Your task to perform on an android device: turn pop-ups off in chrome Image 0: 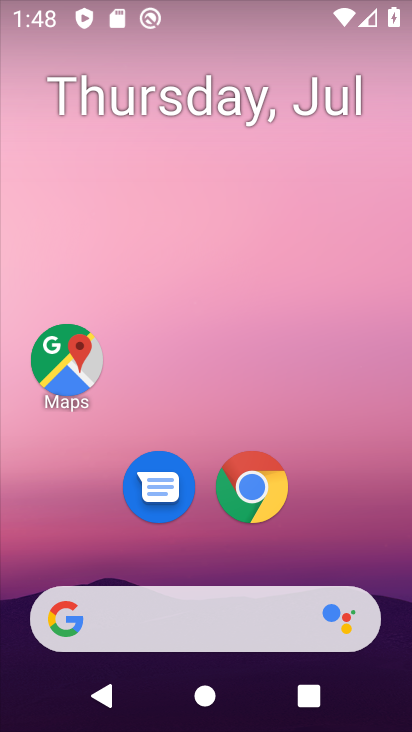
Step 0: drag from (353, 544) to (340, 189)
Your task to perform on an android device: turn pop-ups off in chrome Image 1: 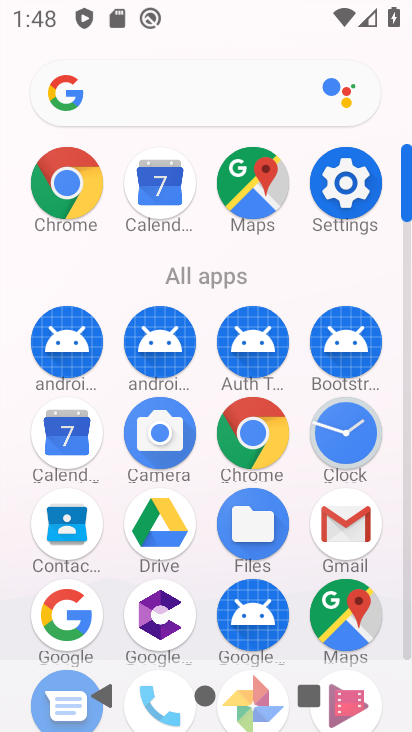
Step 1: click (279, 433)
Your task to perform on an android device: turn pop-ups off in chrome Image 2: 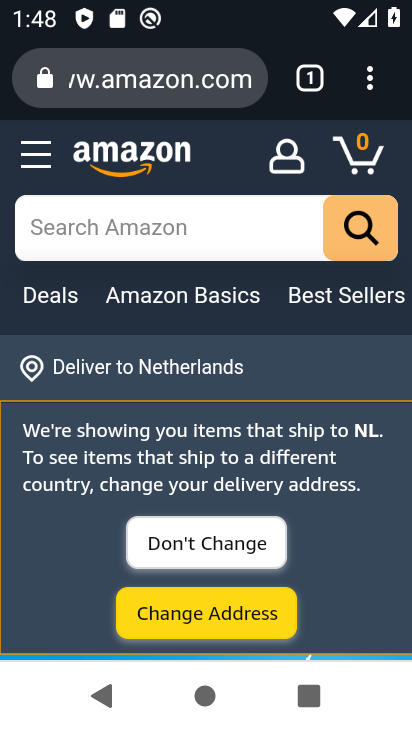
Step 2: click (366, 88)
Your task to perform on an android device: turn pop-ups off in chrome Image 3: 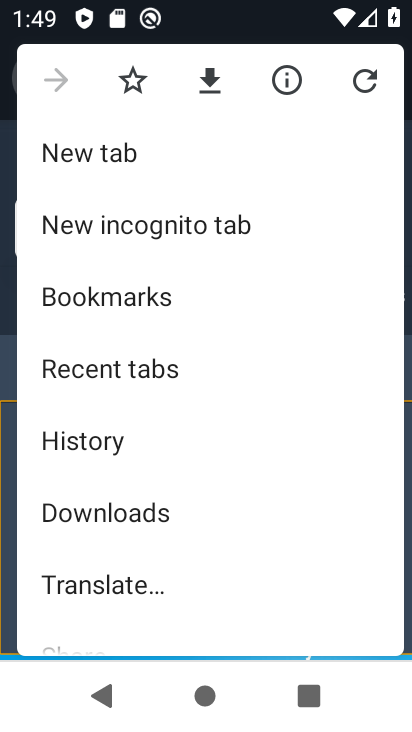
Step 3: drag from (358, 315) to (364, 256)
Your task to perform on an android device: turn pop-ups off in chrome Image 4: 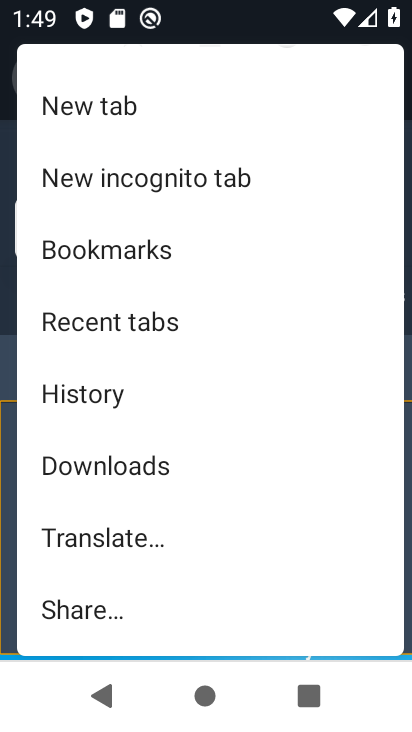
Step 4: drag from (347, 357) to (346, 277)
Your task to perform on an android device: turn pop-ups off in chrome Image 5: 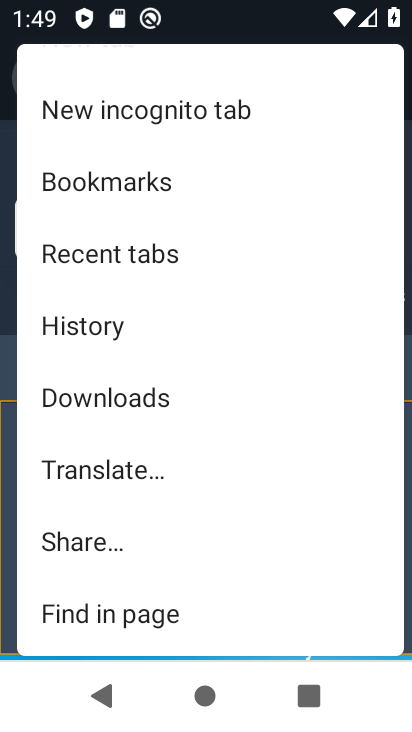
Step 5: drag from (338, 438) to (341, 341)
Your task to perform on an android device: turn pop-ups off in chrome Image 6: 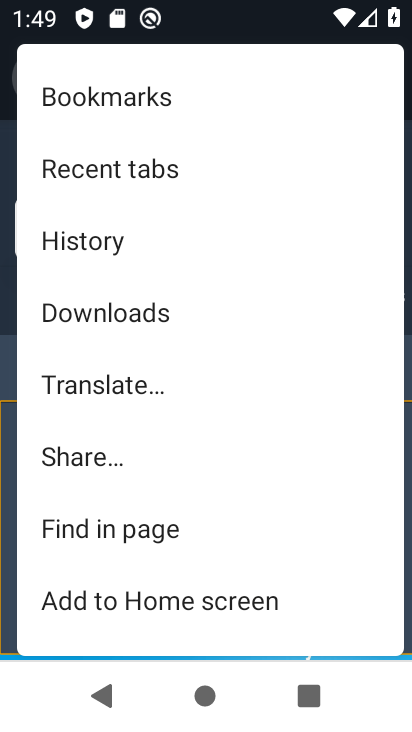
Step 6: drag from (309, 465) to (304, 361)
Your task to perform on an android device: turn pop-ups off in chrome Image 7: 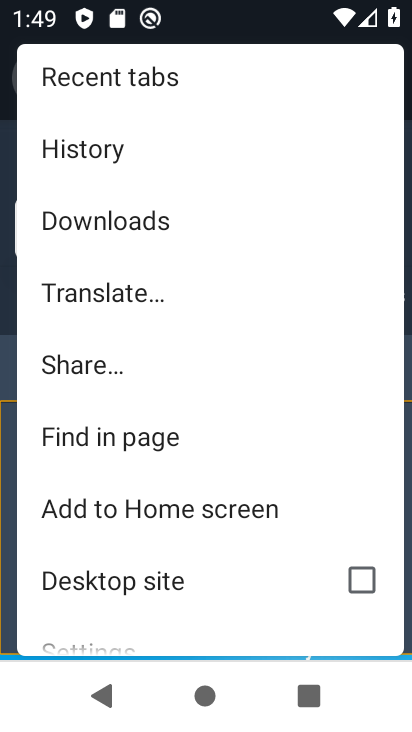
Step 7: drag from (298, 468) to (295, 299)
Your task to perform on an android device: turn pop-ups off in chrome Image 8: 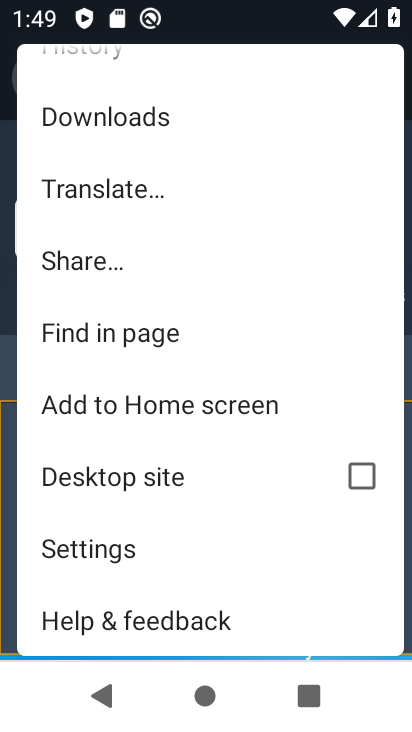
Step 8: click (119, 552)
Your task to perform on an android device: turn pop-ups off in chrome Image 9: 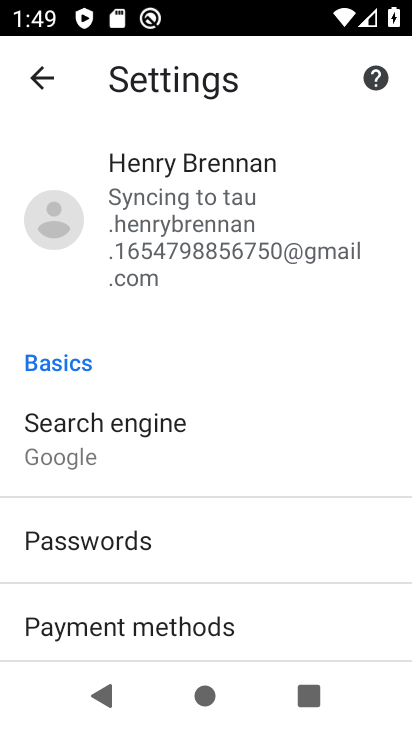
Step 9: drag from (333, 559) to (333, 460)
Your task to perform on an android device: turn pop-ups off in chrome Image 10: 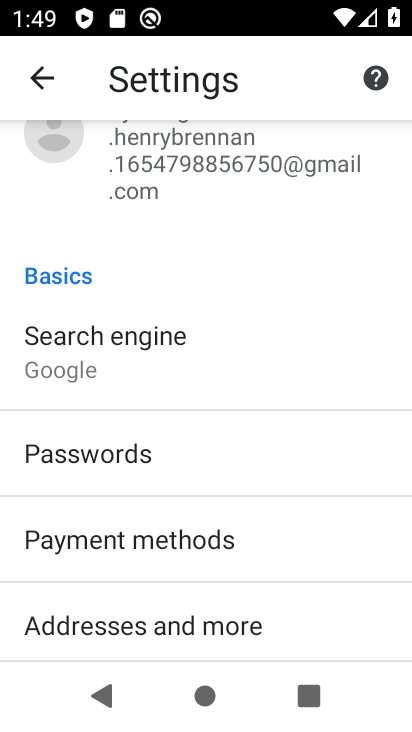
Step 10: drag from (340, 544) to (340, 464)
Your task to perform on an android device: turn pop-ups off in chrome Image 11: 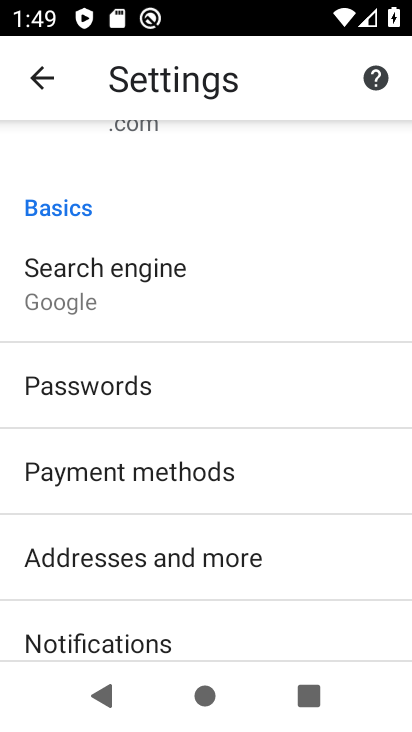
Step 11: drag from (340, 545) to (347, 449)
Your task to perform on an android device: turn pop-ups off in chrome Image 12: 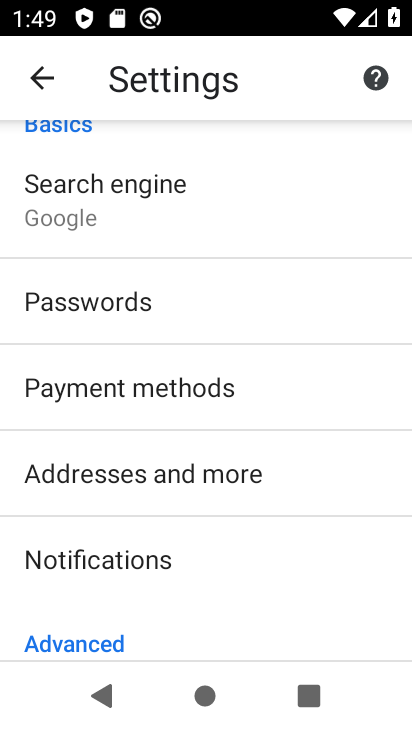
Step 12: drag from (359, 579) to (359, 480)
Your task to perform on an android device: turn pop-ups off in chrome Image 13: 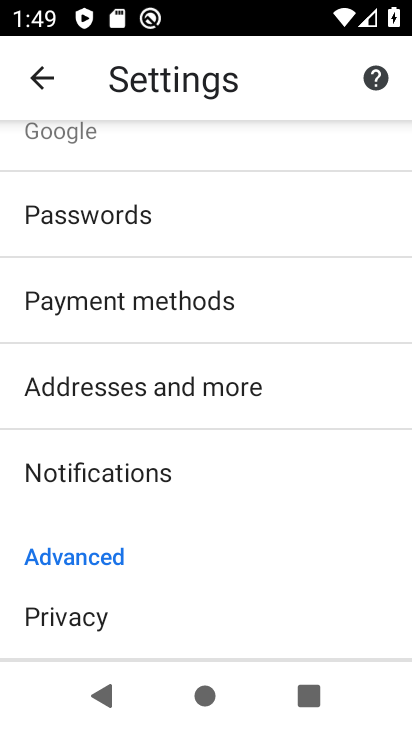
Step 13: drag from (349, 583) to (338, 458)
Your task to perform on an android device: turn pop-ups off in chrome Image 14: 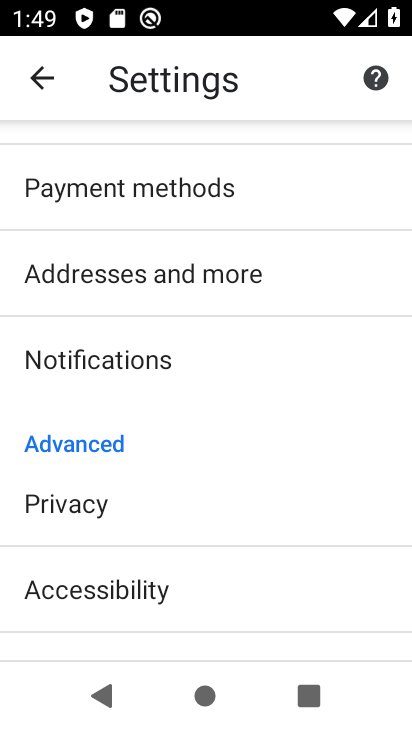
Step 14: drag from (326, 543) to (320, 431)
Your task to perform on an android device: turn pop-ups off in chrome Image 15: 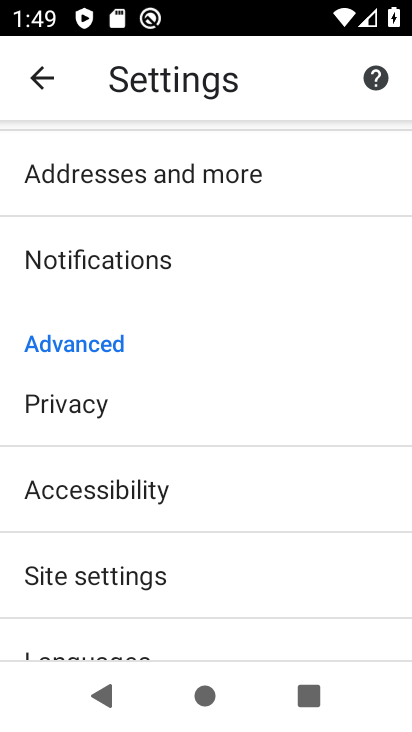
Step 15: drag from (325, 517) to (324, 419)
Your task to perform on an android device: turn pop-ups off in chrome Image 16: 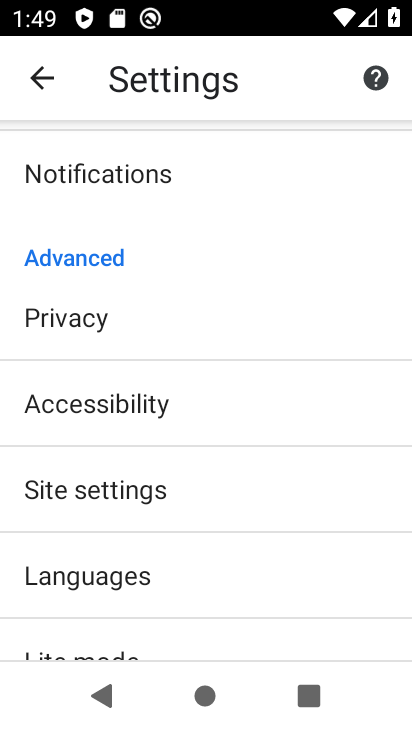
Step 16: drag from (322, 534) to (321, 435)
Your task to perform on an android device: turn pop-ups off in chrome Image 17: 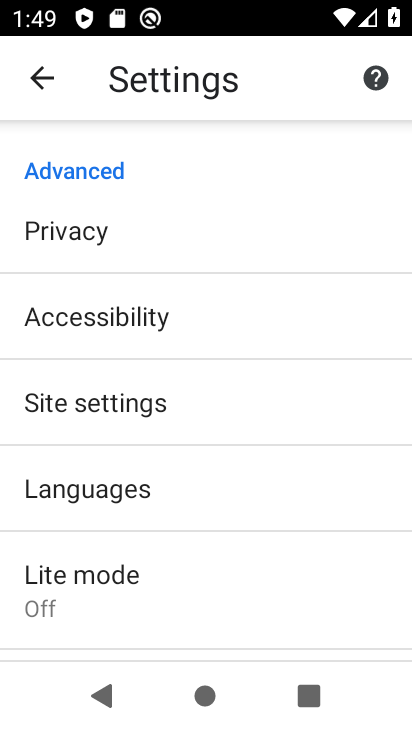
Step 17: click (235, 424)
Your task to perform on an android device: turn pop-ups off in chrome Image 18: 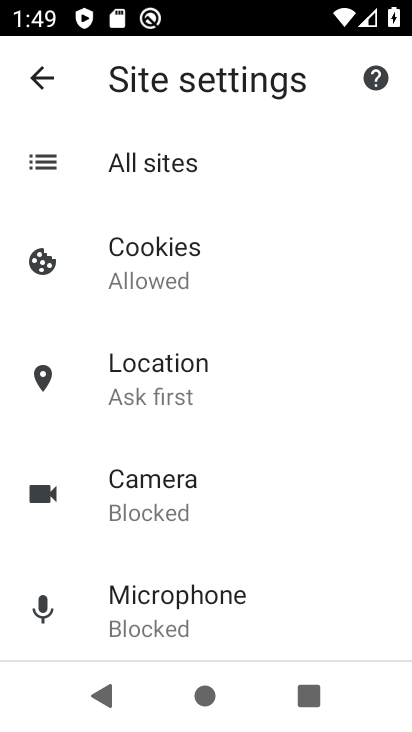
Step 18: drag from (315, 485) to (323, 415)
Your task to perform on an android device: turn pop-ups off in chrome Image 19: 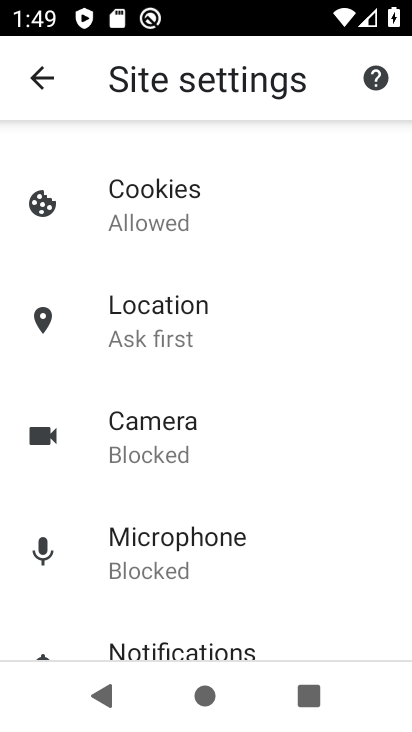
Step 19: drag from (316, 501) to (317, 423)
Your task to perform on an android device: turn pop-ups off in chrome Image 20: 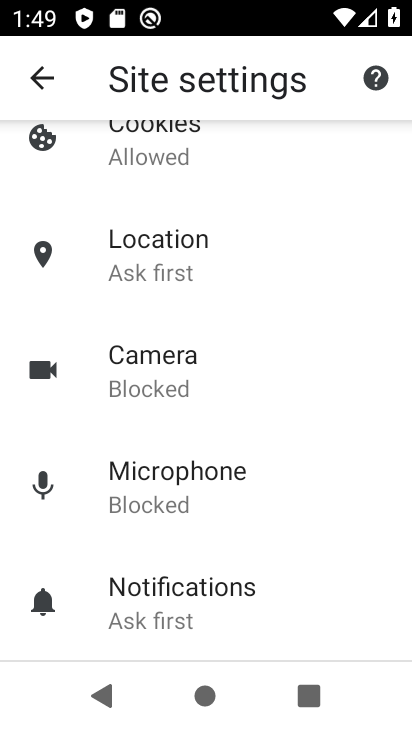
Step 20: drag from (331, 507) to (330, 417)
Your task to perform on an android device: turn pop-ups off in chrome Image 21: 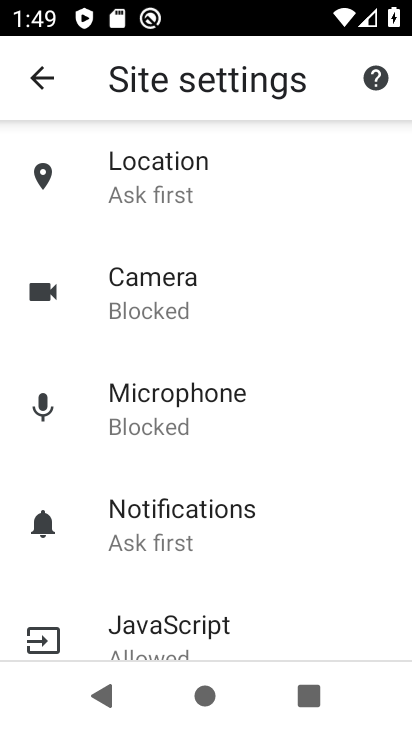
Step 21: drag from (327, 497) to (327, 381)
Your task to perform on an android device: turn pop-ups off in chrome Image 22: 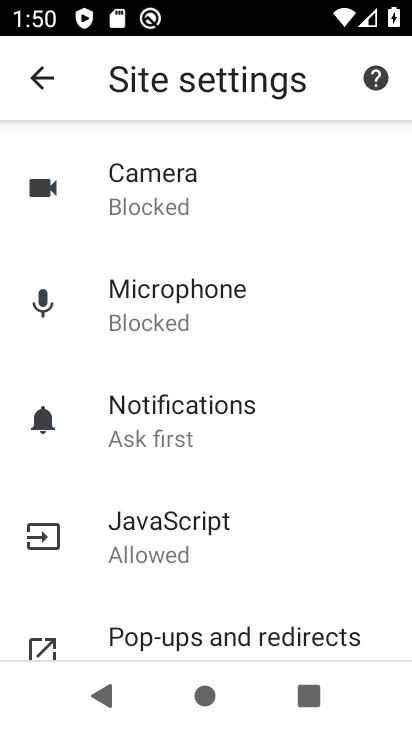
Step 22: drag from (314, 524) to (313, 424)
Your task to perform on an android device: turn pop-ups off in chrome Image 23: 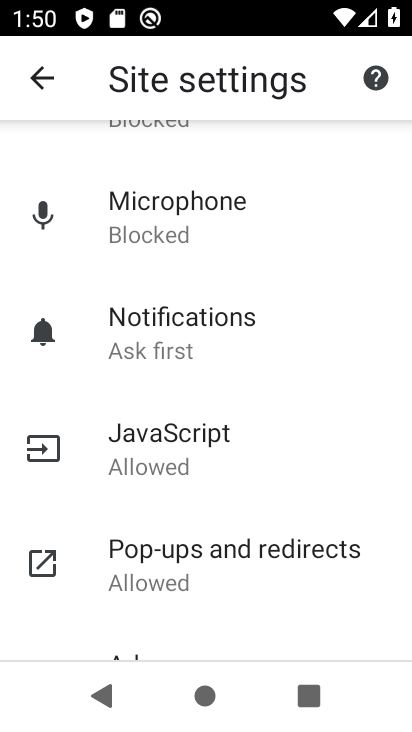
Step 23: drag from (319, 575) to (311, 426)
Your task to perform on an android device: turn pop-ups off in chrome Image 24: 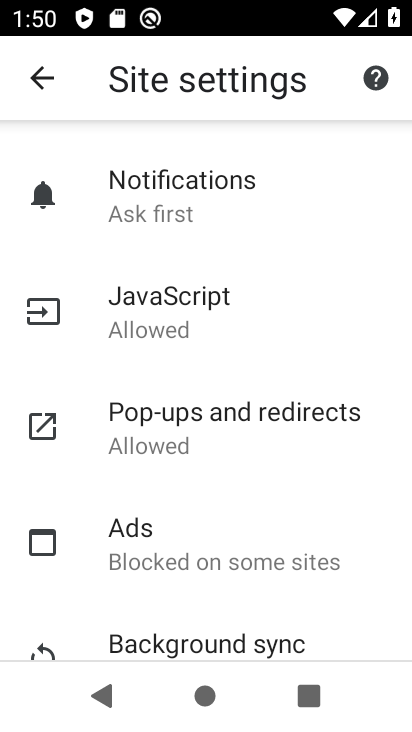
Step 24: click (243, 435)
Your task to perform on an android device: turn pop-ups off in chrome Image 25: 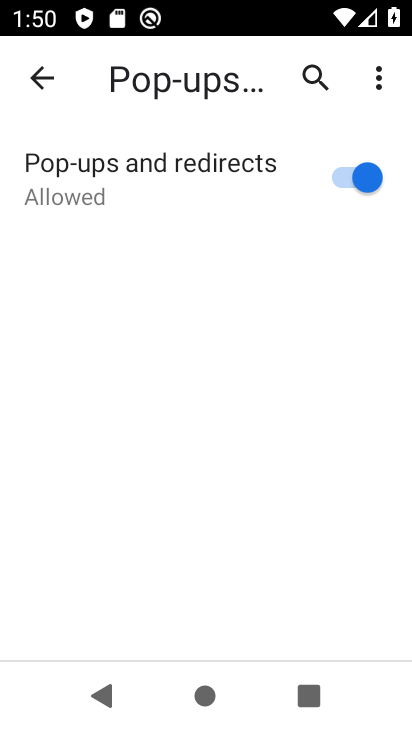
Step 25: click (368, 178)
Your task to perform on an android device: turn pop-ups off in chrome Image 26: 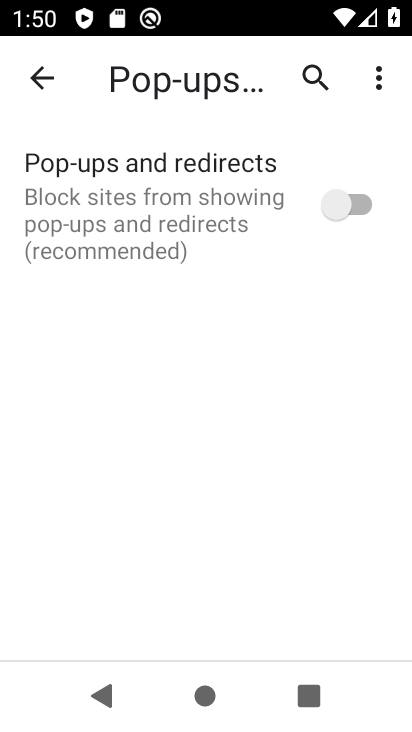
Step 26: task complete